Your task to perform on an android device: Install the CNN app Image 0: 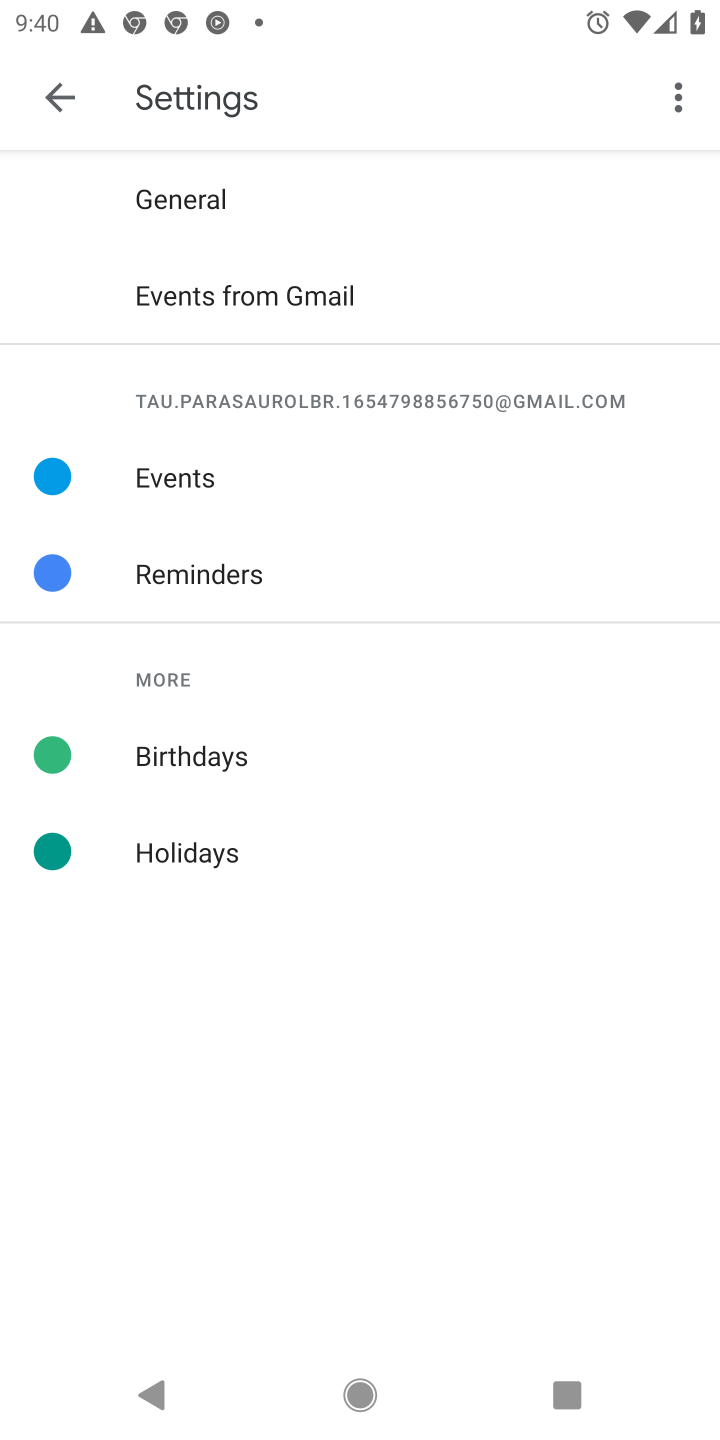
Step 0: press home button
Your task to perform on an android device: Install the CNN app Image 1: 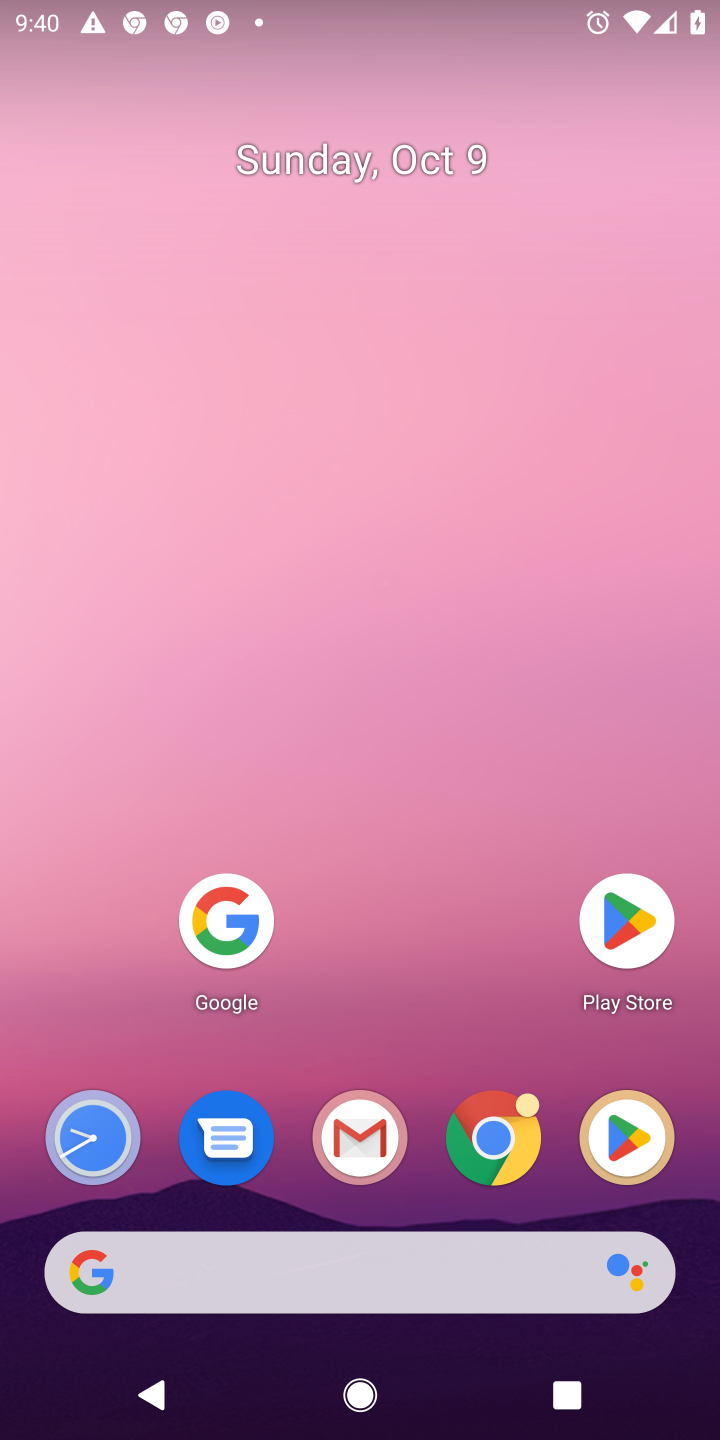
Step 1: click (233, 916)
Your task to perform on an android device: Install the CNN app Image 2: 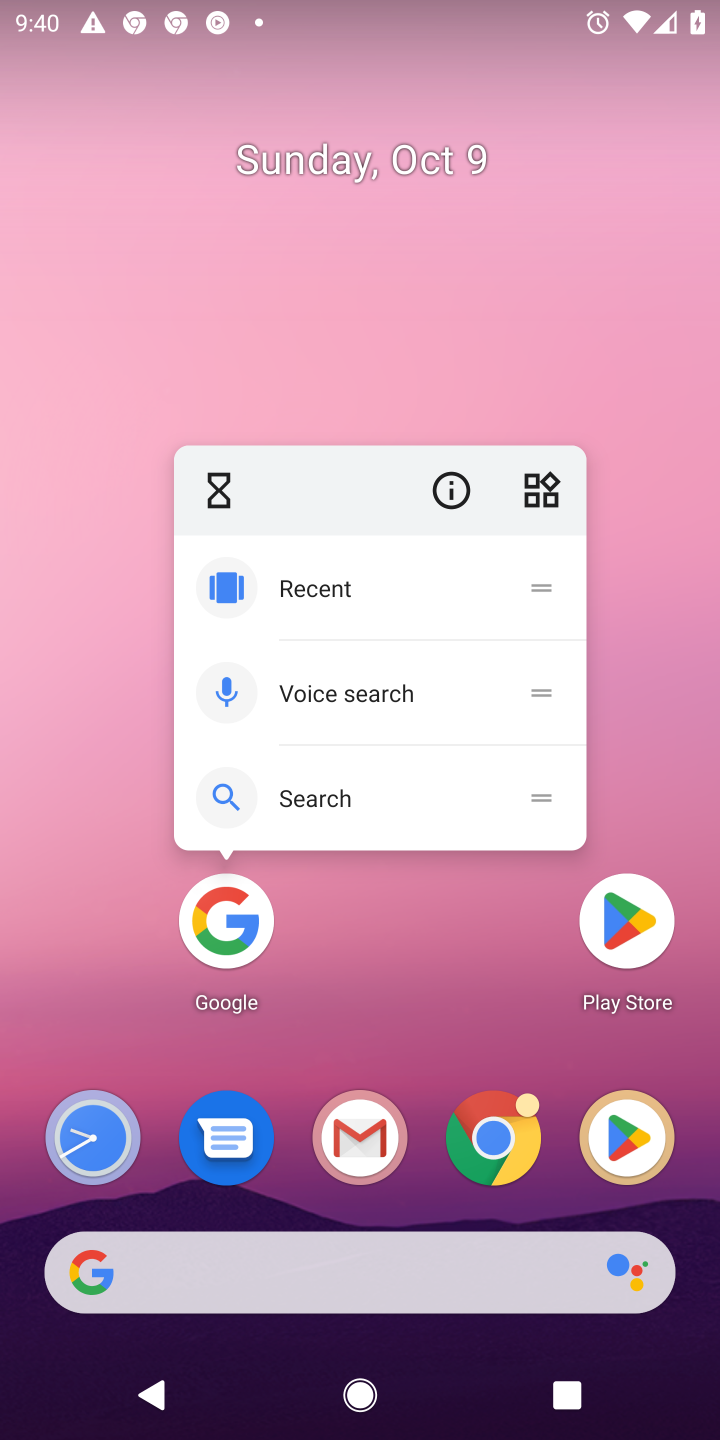
Step 2: click (641, 899)
Your task to perform on an android device: Install the CNN app Image 3: 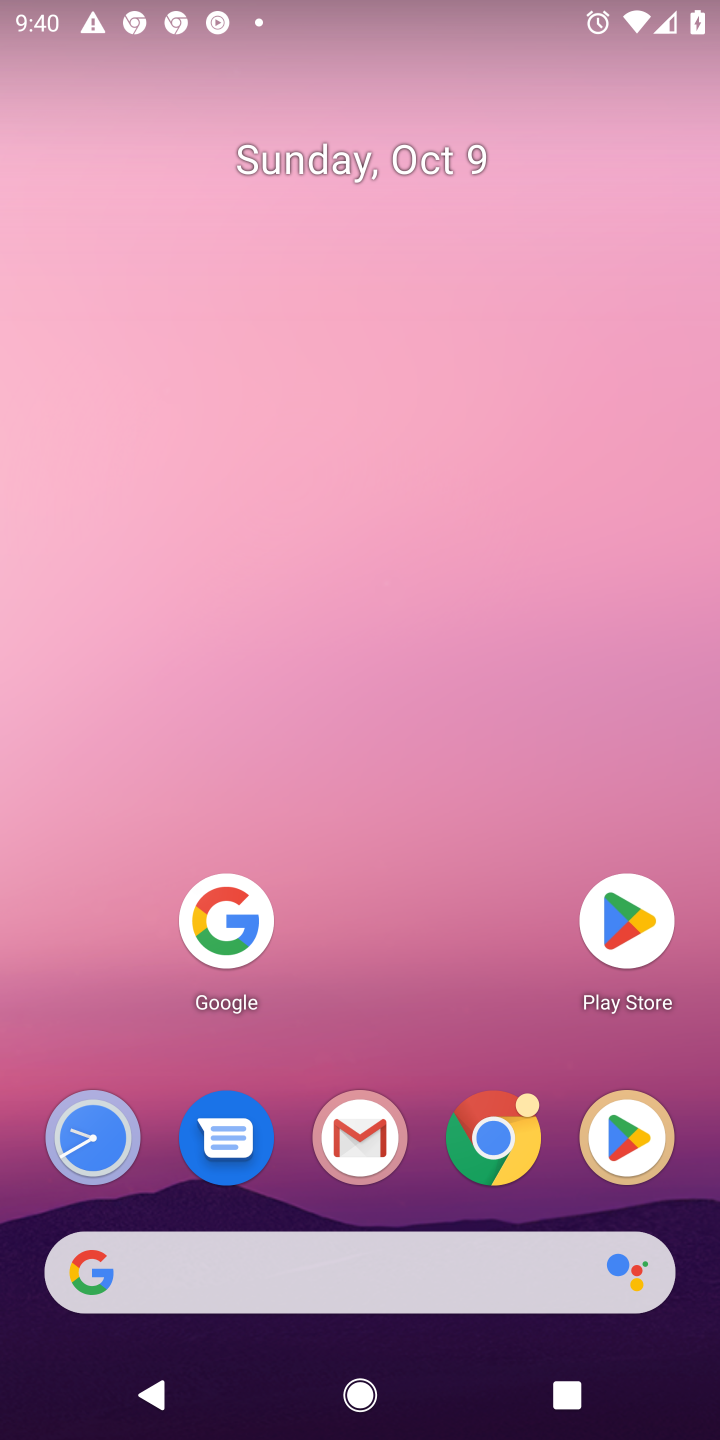
Step 3: click (625, 922)
Your task to perform on an android device: Install the CNN app Image 4: 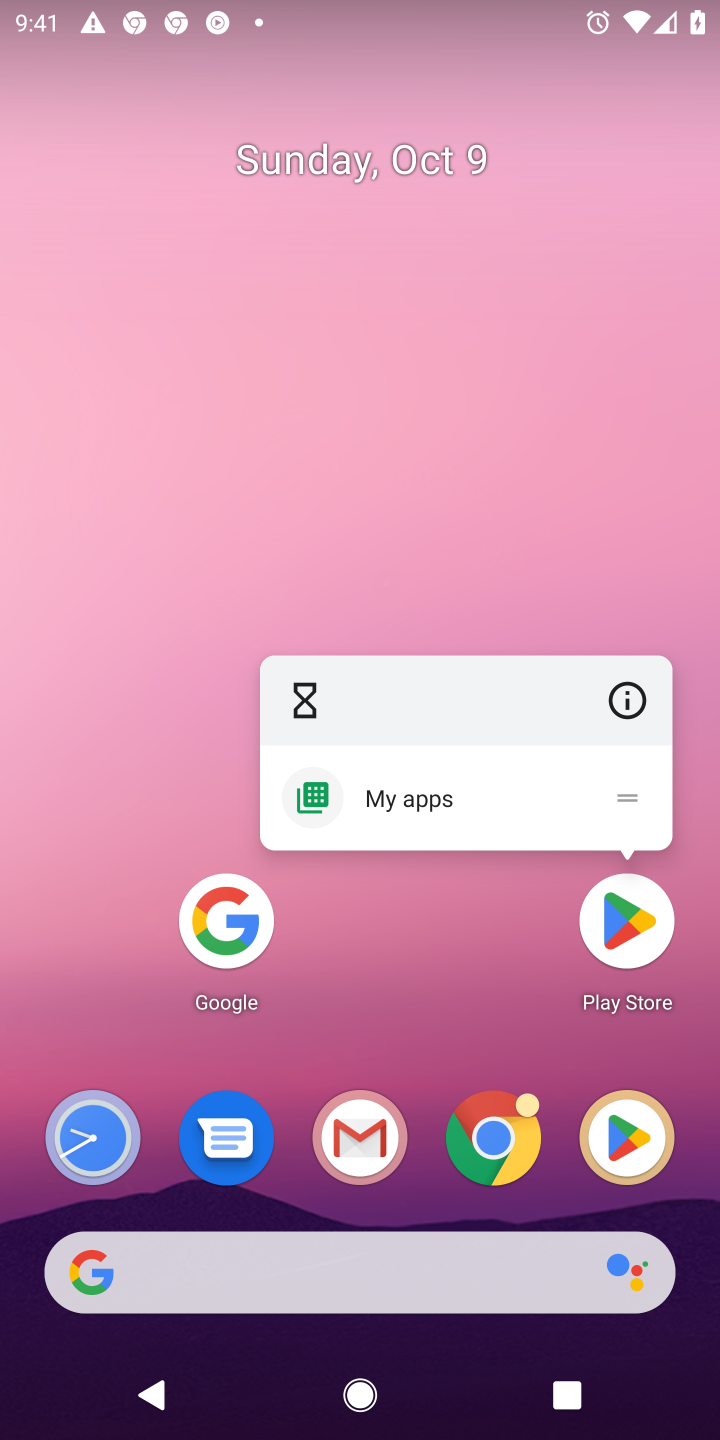
Step 4: click (625, 922)
Your task to perform on an android device: Install the CNN app Image 5: 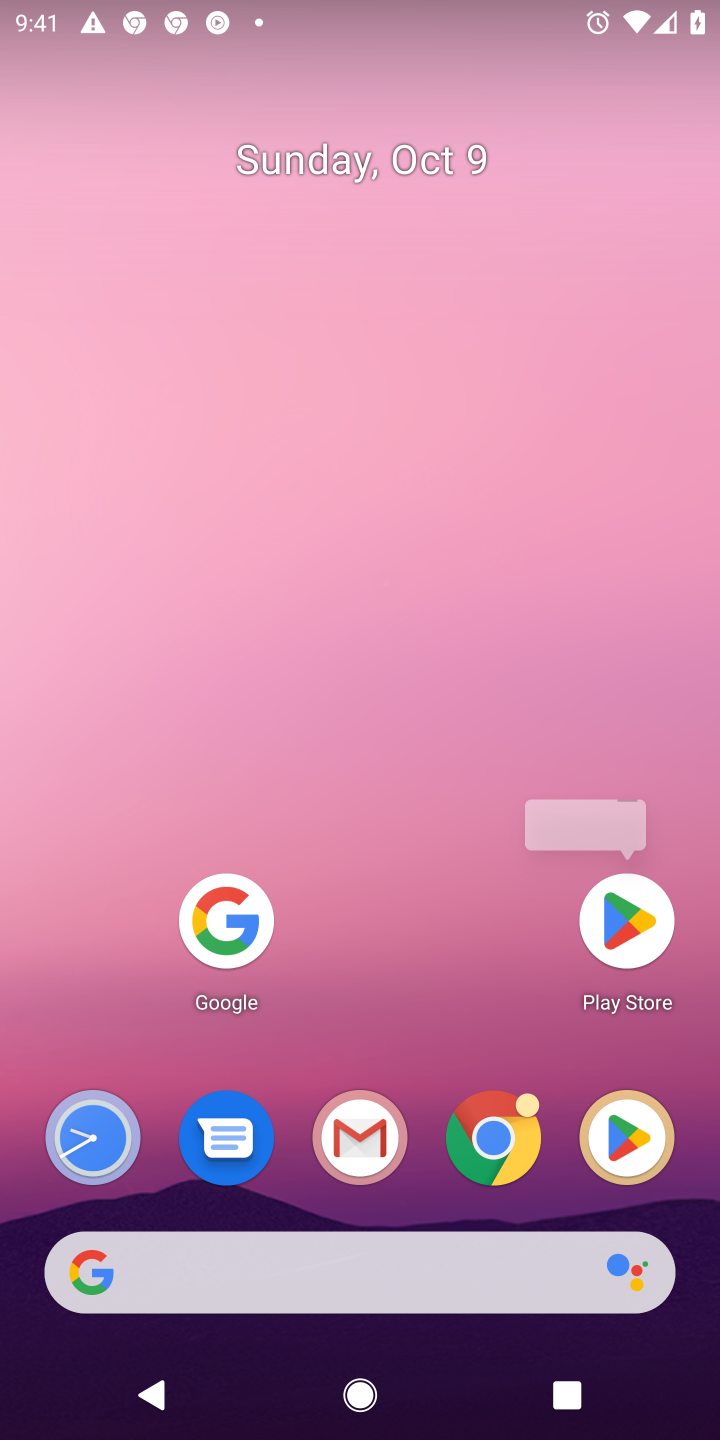
Step 5: click (618, 933)
Your task to perform on an android device: Install the CNN app Image 6: 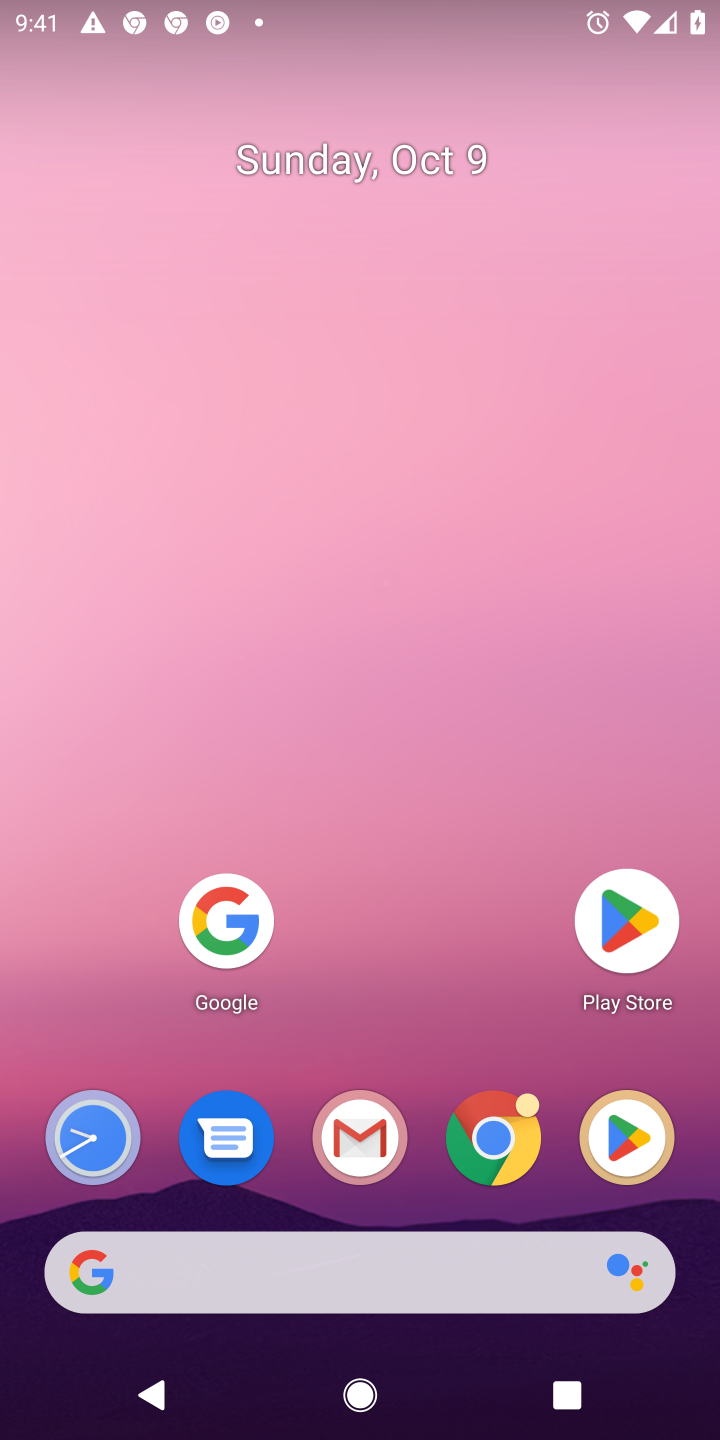
Step 6: click (629, 923)
Your task to perform on an android device: Install the CNN app Image 7: 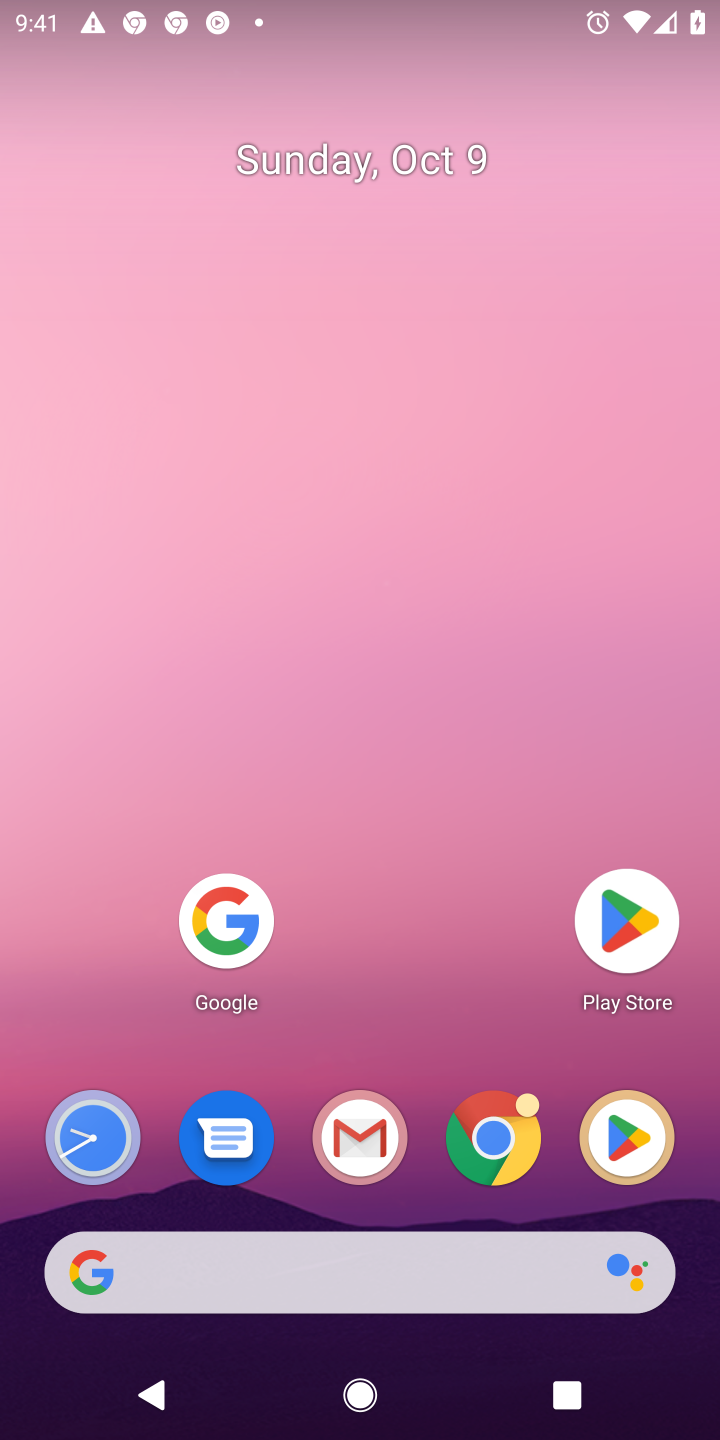
Step 7: click (630, 914)
Your task to perform on an android device: Install the CNN app Image 8: 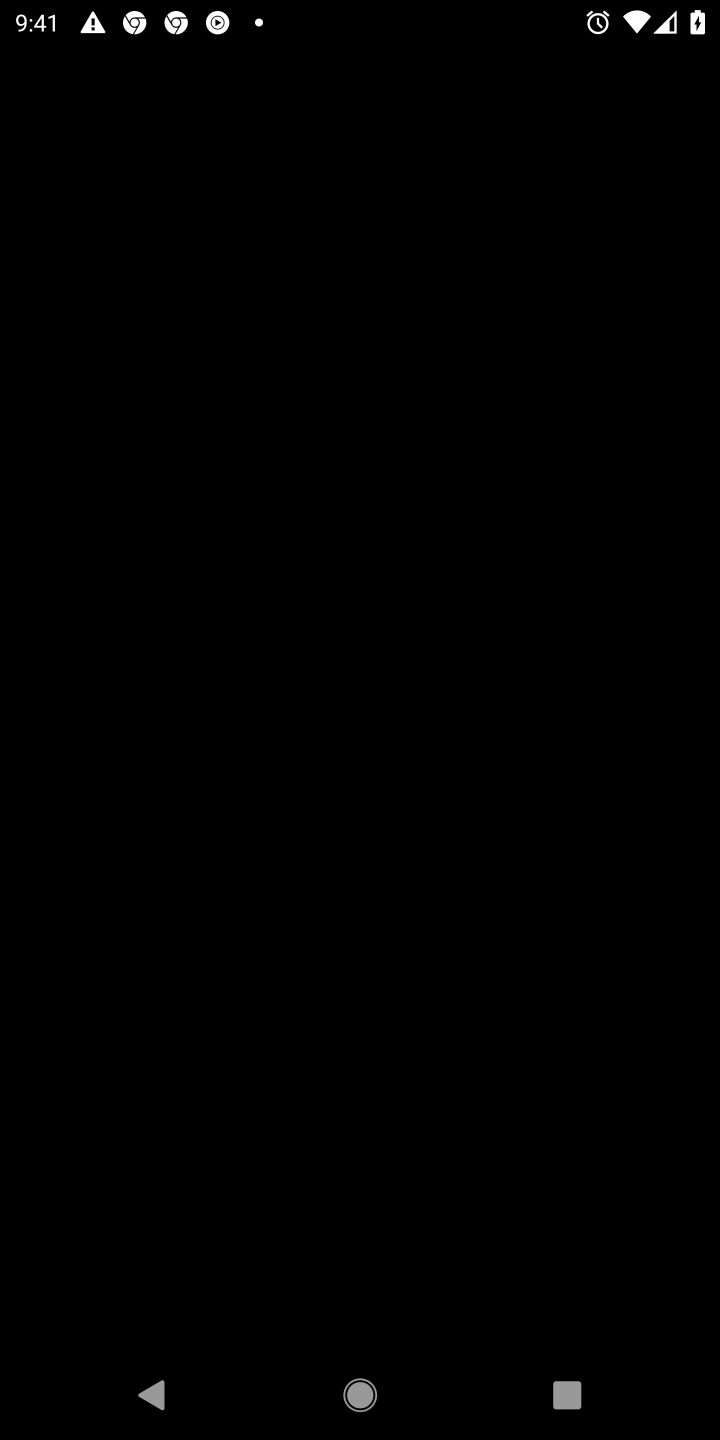
Step 8: drag from (419, 1061) to (448, 852)
Your task to perform on an android device: Install the CNN app Image 9: 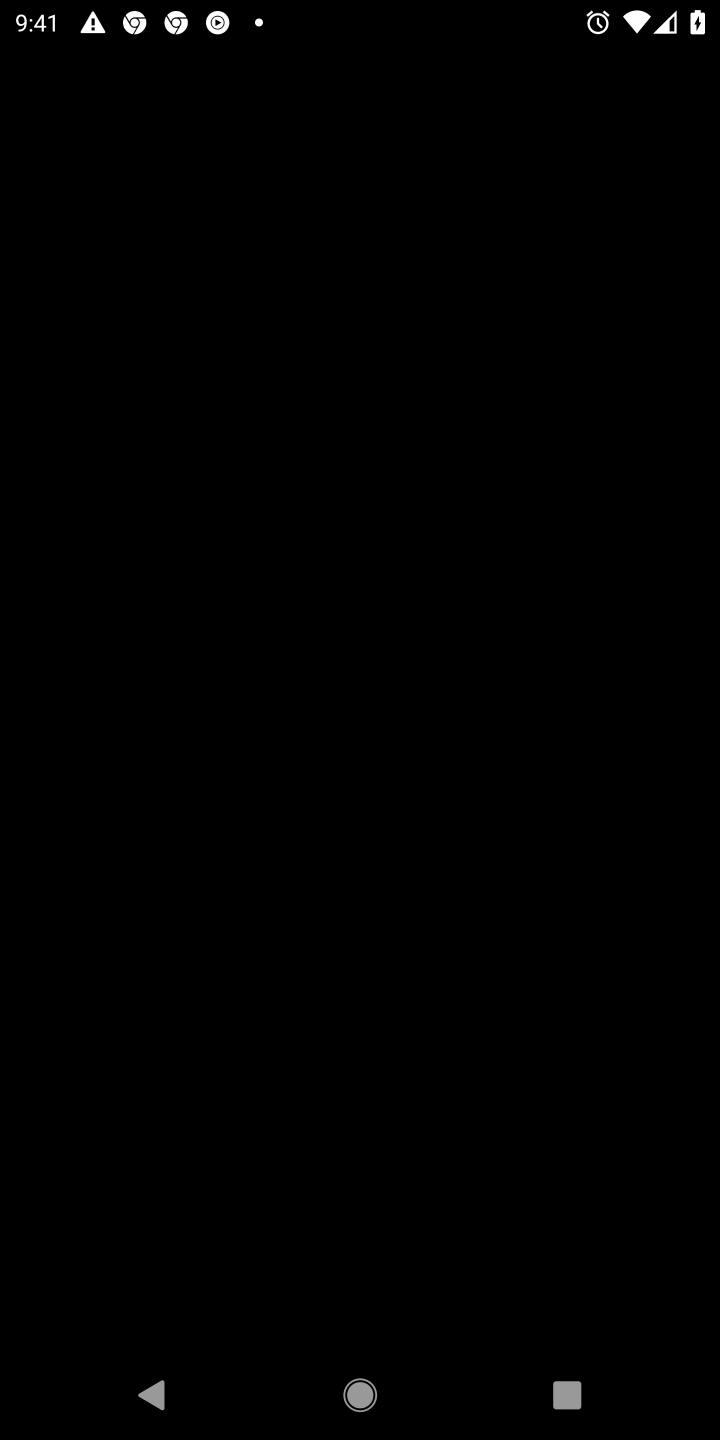
Step 9: press home button
Your task to perform on an android device: Install the CNN app Image 10: 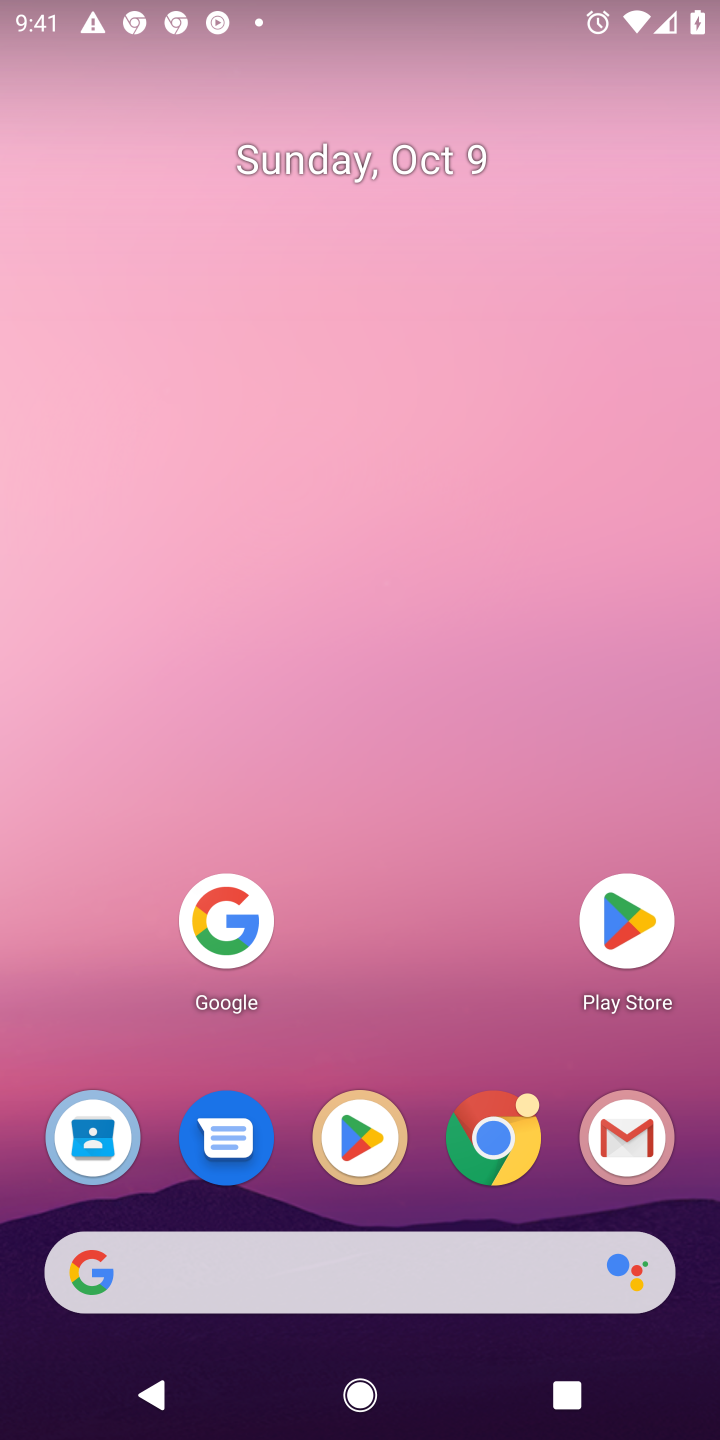
Step 10: click (602, 904)
Your task to perform on an android device: Install the CNN app Image 11: 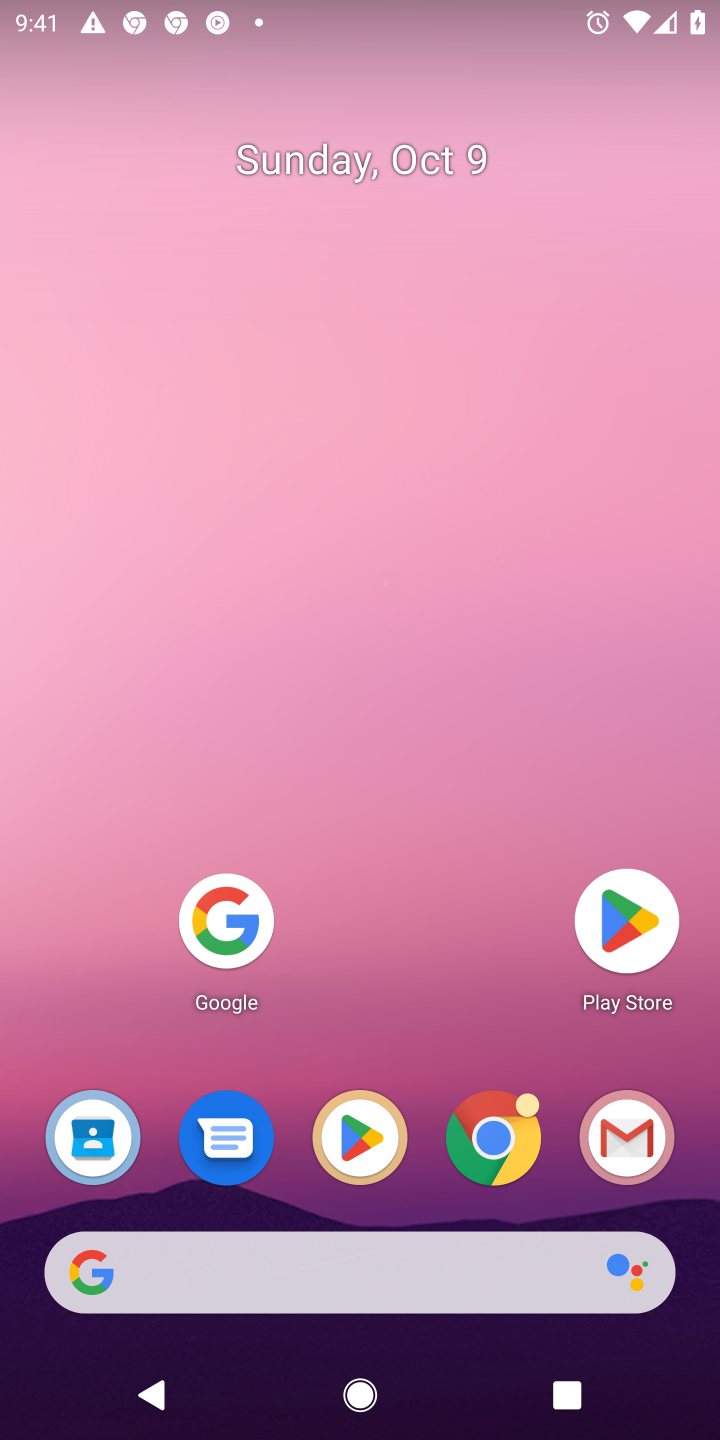
Step 11: click (639, 919)
Your task to perform on an android device: Install the CNN app Image 12: 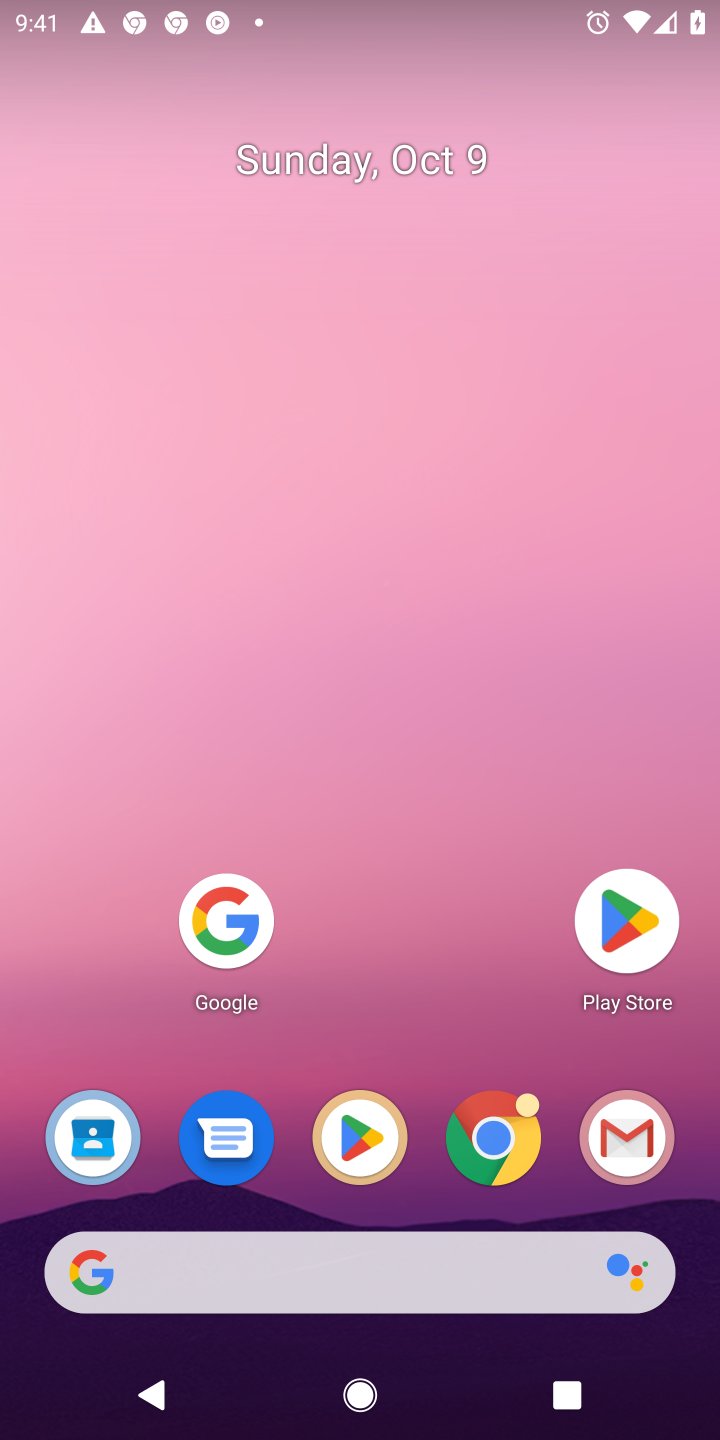
Step 12: task complete